Your task to perform on an android device: Search for Italian restaurants on Maps Image 0: 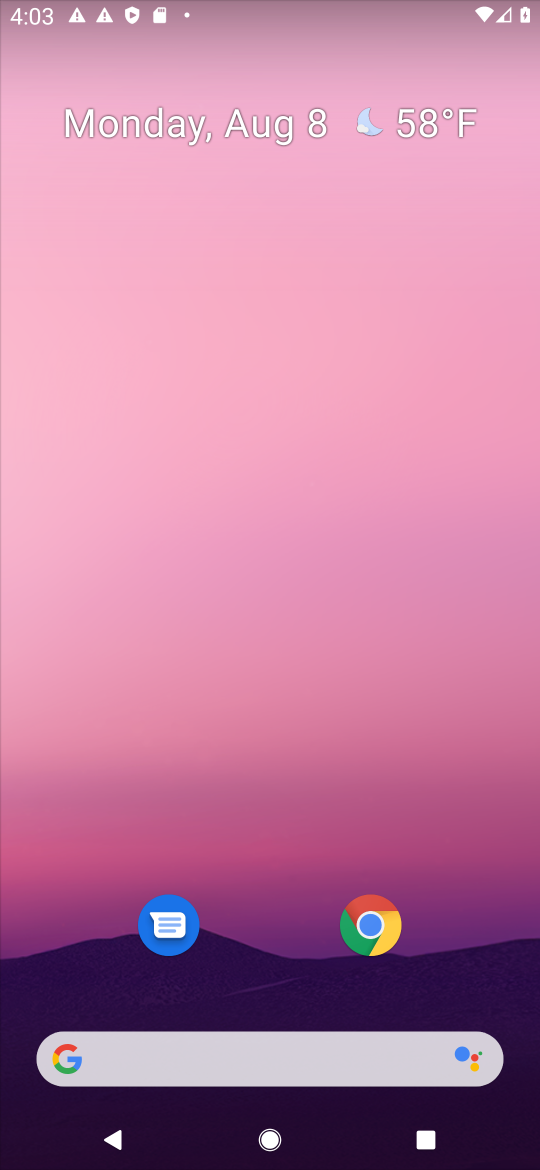
Step 0: drag from (139, 1002) to (133, 576)
Your task to perform on an android device: Search for Italian restaurants on Maps Image 1: 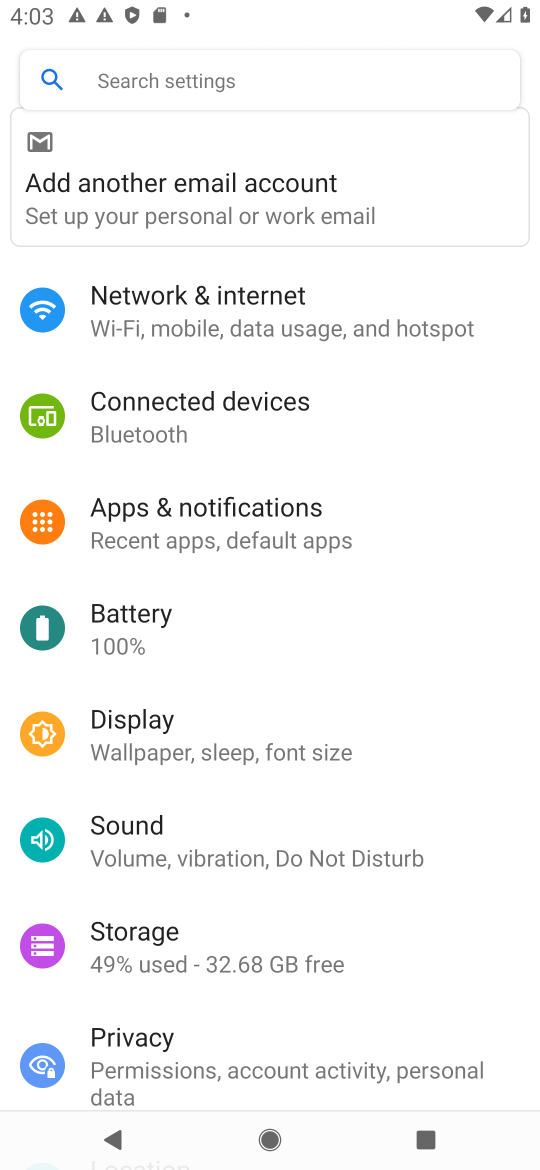
Step 1: press home button
Your task to perform on an android device: Search for Italian restaurants on Maps Image 2: 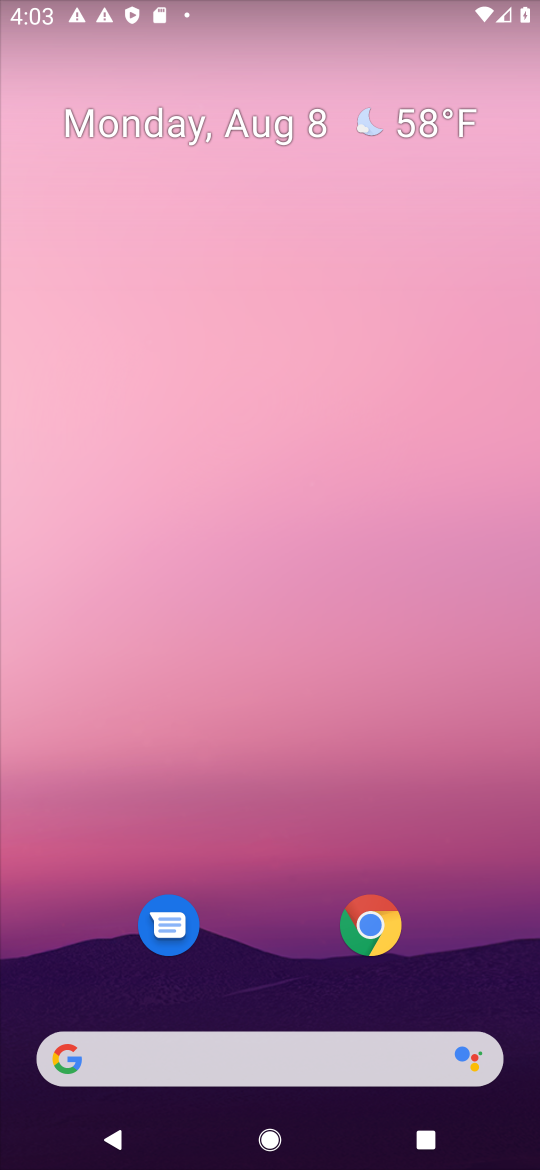
Step 2: drag from (310, 902) to (309, 143)
Your task to perform on an android device: Search for Italian restaurants on Maps Image 3: 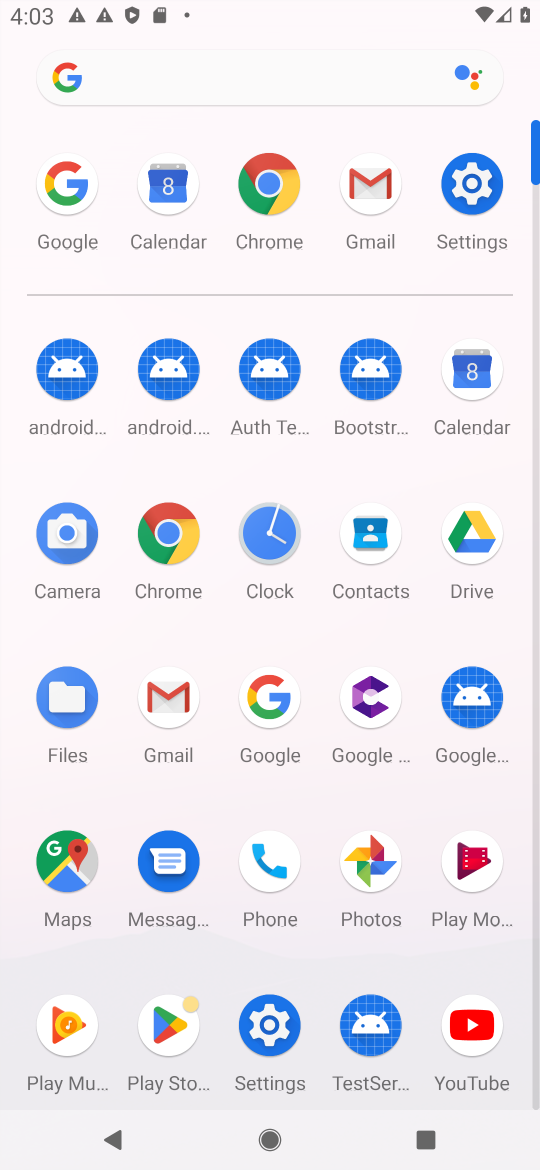
Step 3: click (74, 848)
Your task to perform on an android device: Search for Italian restaurants on Maps Image 4: 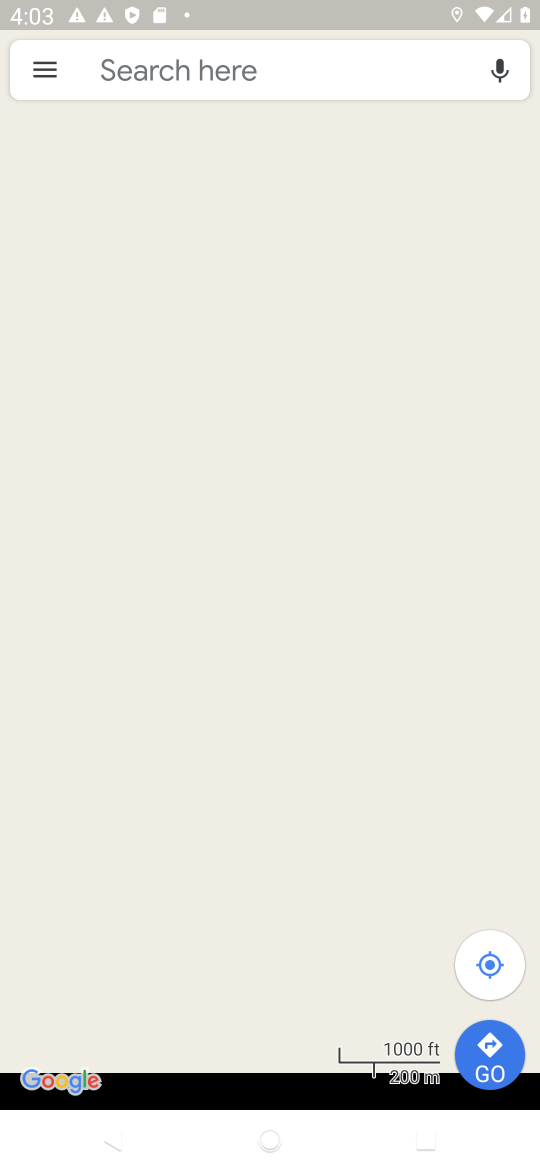
Step 4: click (325, 63)
Your task to perform on an android device: Search for Italian restaurants on Maps Image 5: 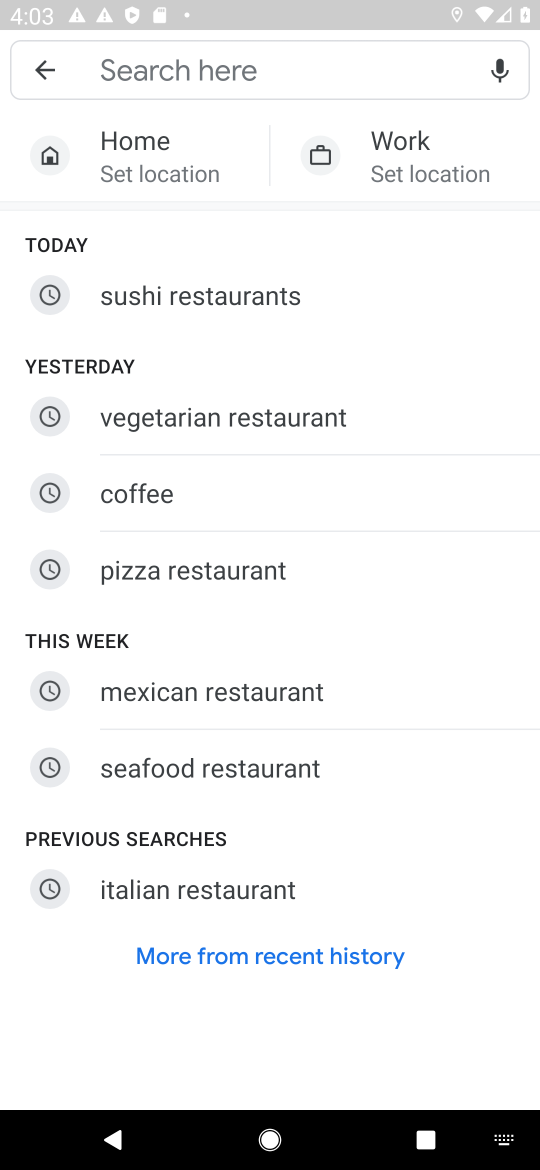
Step 5: type "Italian restaurants"
Your task to perform on an android device: Search for Italian restaurants on Maps Image 6: 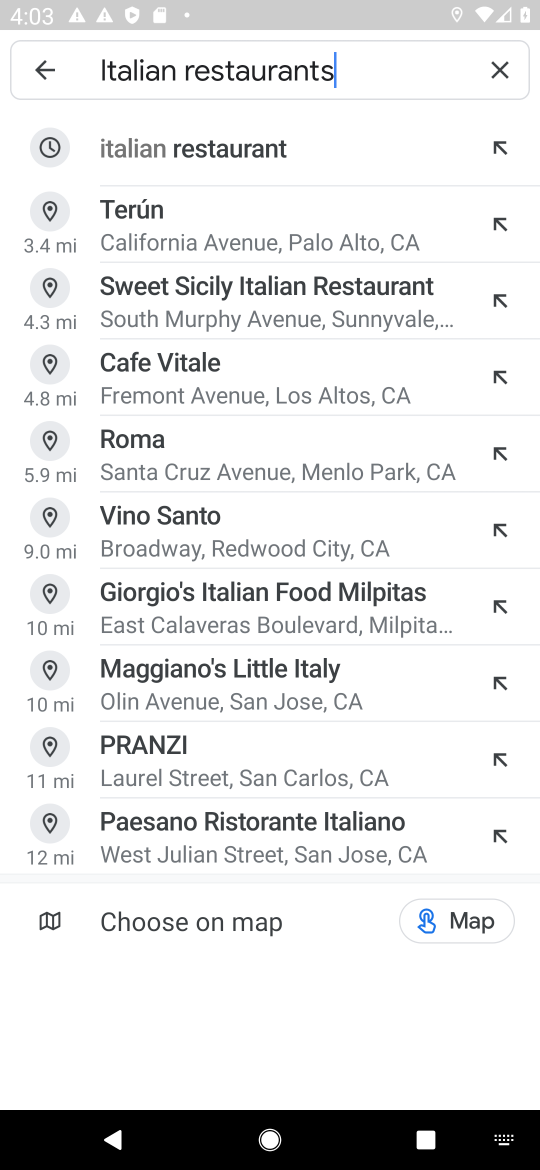
Step 6: click (179, 157)
Your task to perform on an android device: Search for Italian restaurants on Maps Image 7: 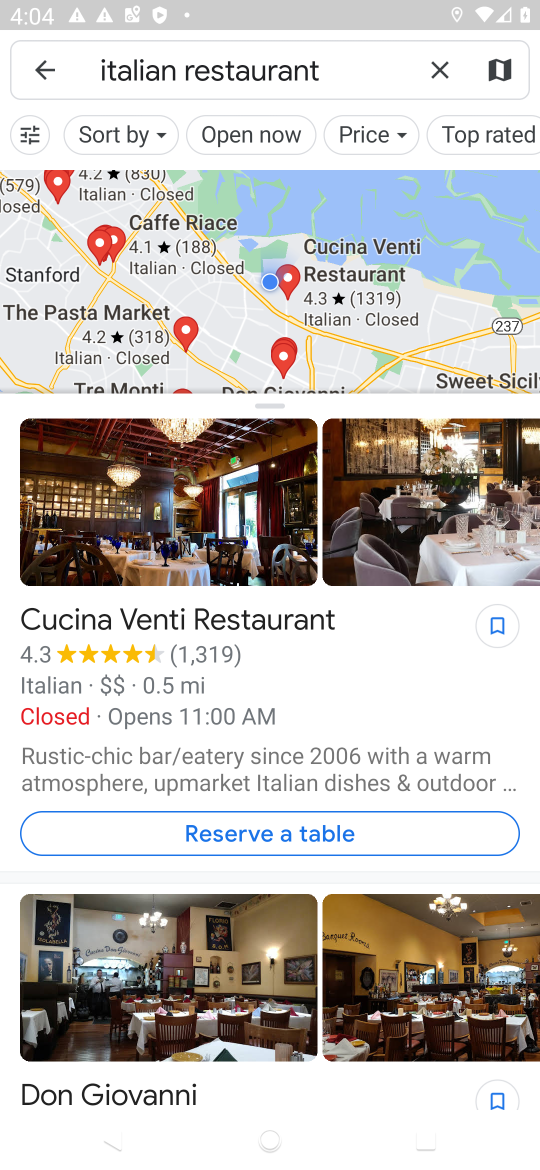
Step 7: task complete